Your task to perform on an android device: Open Maps and search for coffee Image 0: 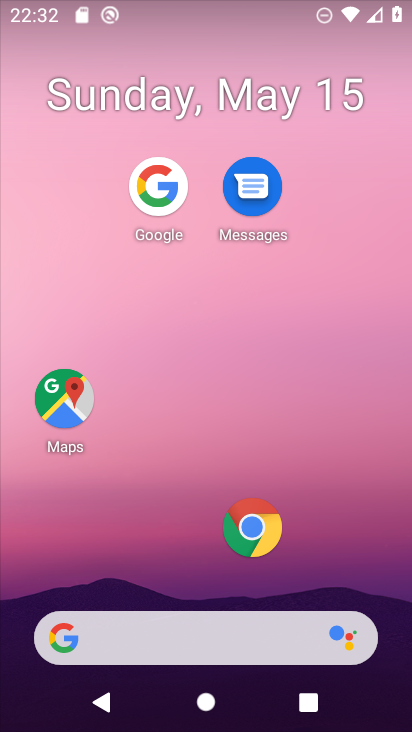
Step 0: press home button
Your task to perform on an android device: Open Maps and search for coffee Image 1: 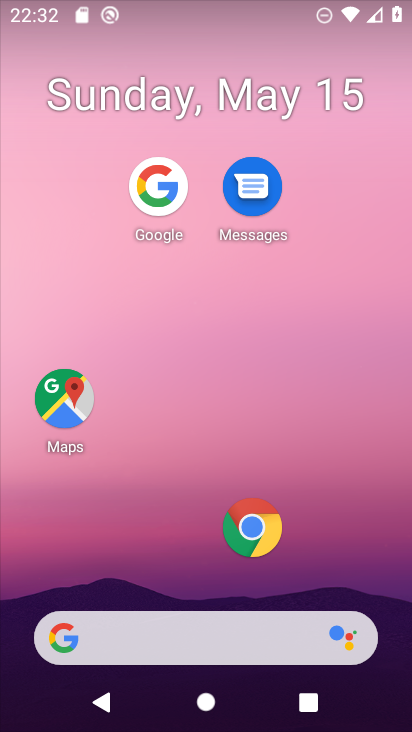
Step 1: click (65, 405)
Your task to perform on an android device: Open Maps and search for coffee Image 2: 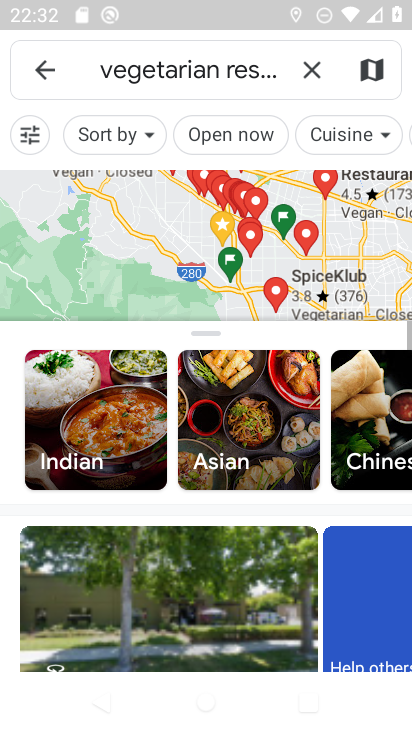
Step 2: click (310, 70)
Your task to perform on an android device: Open Maps and search for coffee Image 3: 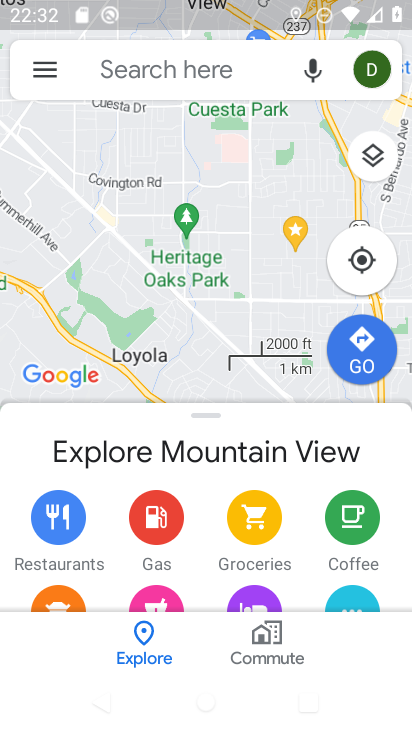
Step 3: click (228, 66)
Your task to perform on an android device: Open Maps and search for coffee Image 4: 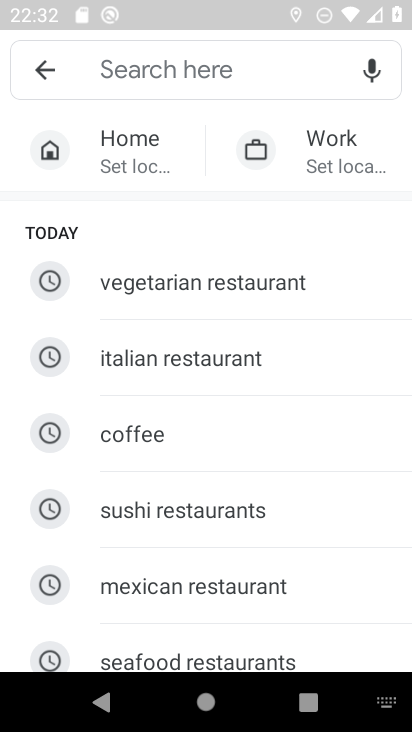
Step 4: click (136, 439)
Your task to perform on an android device: Open Maps and search for coffee Image 5: 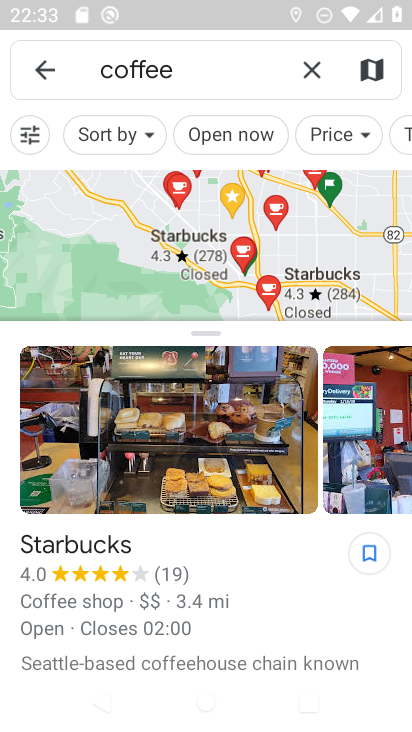
Step 5: task complete